Your task to perform on an android device: check storage Image 0: 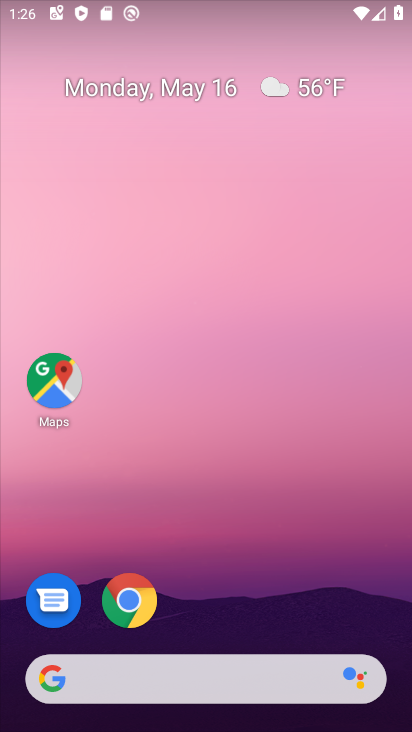
Step 0: drag from (277, 638) to (285, 168)
Your task to perform on an android device: check storage Image 1: 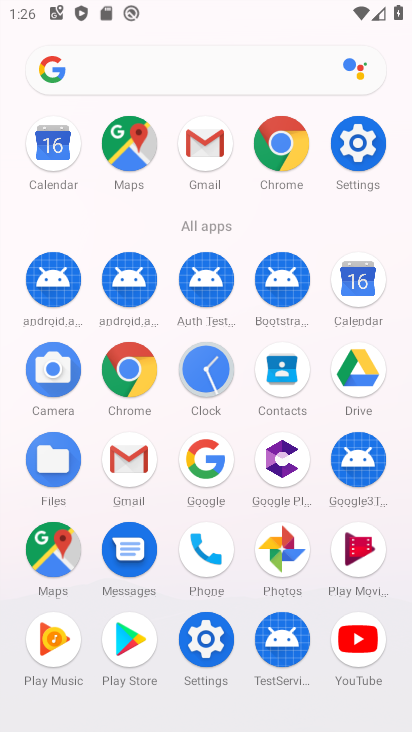
Step 1: drag from (323, 243) to (304, 95)
Your task to perform on an android device: check storage Image 2: 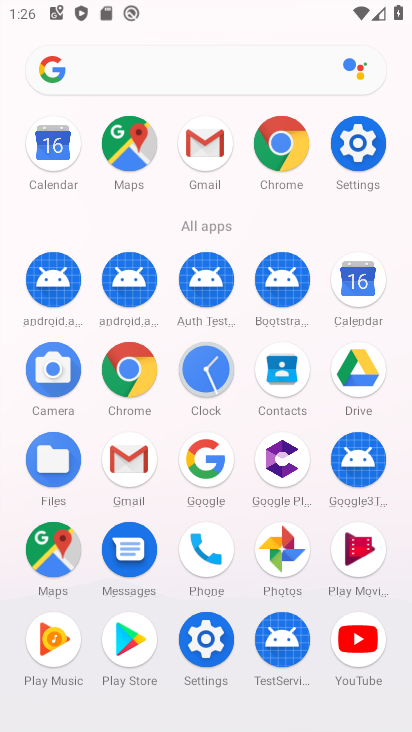
Step 2: click (212, 650)
Your task to perform on an android device: check storage Image 3: 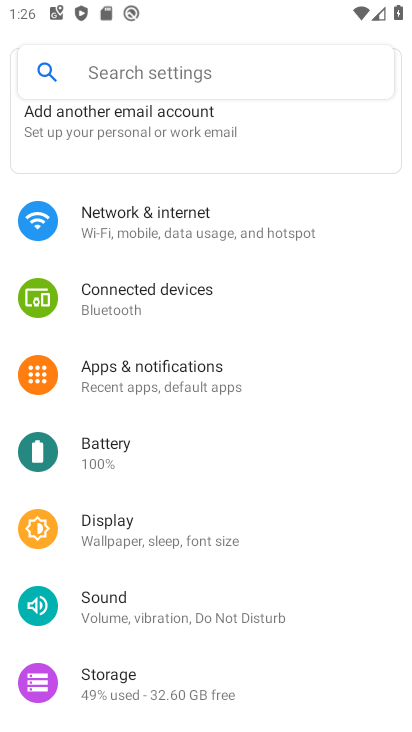
Step 3: click (172, 675)
Your task to perform on an android device: check storage Image 4: 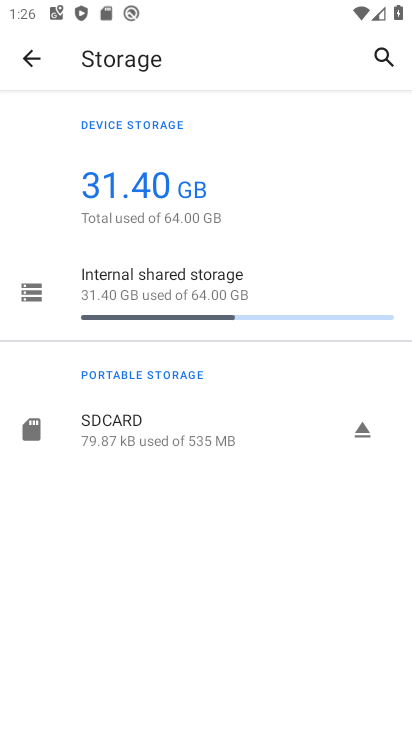
Step 4: task complete